Your task to perform on an android device: Open display settings Image 0: 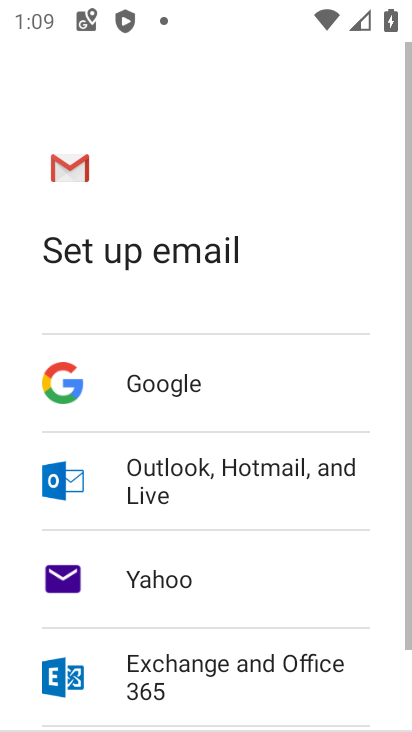
Step 0: press back button
Your task to perform on an android device: Open display settings Image 1: 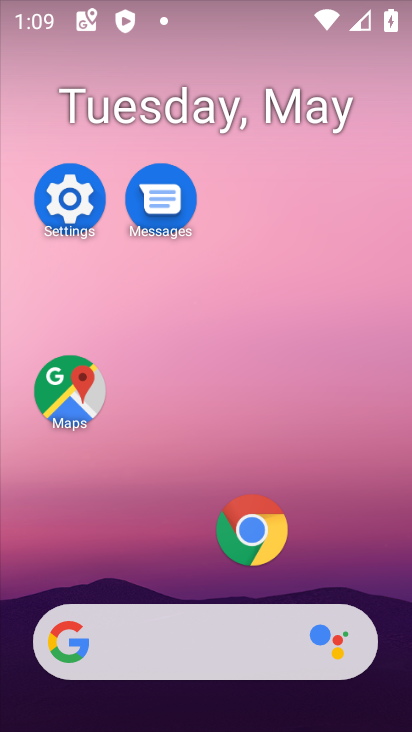
Step 1: drag from (180, 519) to (252, 236)
Your task to perform on an android device: Open display settings Image 2: 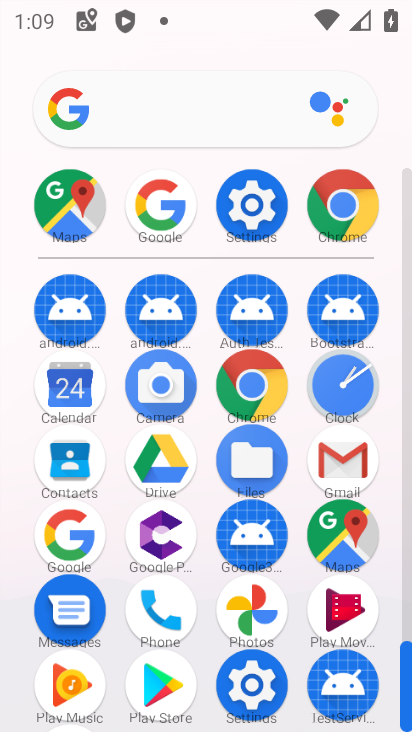
Step 2: click (247, 704)
Your task to perform on an android device: Open display settings Image 3: 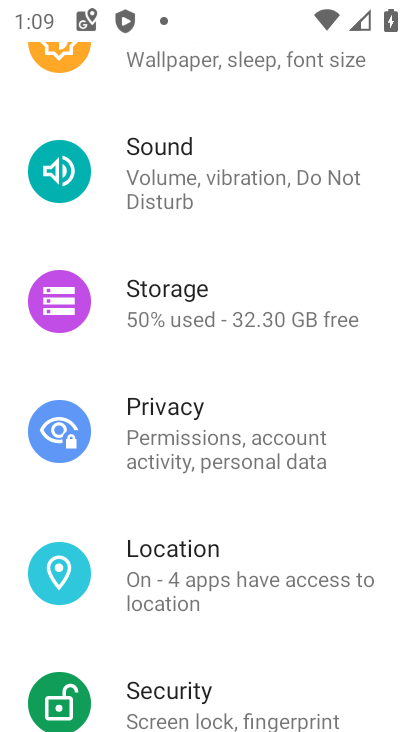
Step 3: drag from (173, 585) to (207, 718)
Your task to perform on an android device: Open display settings Image 4: 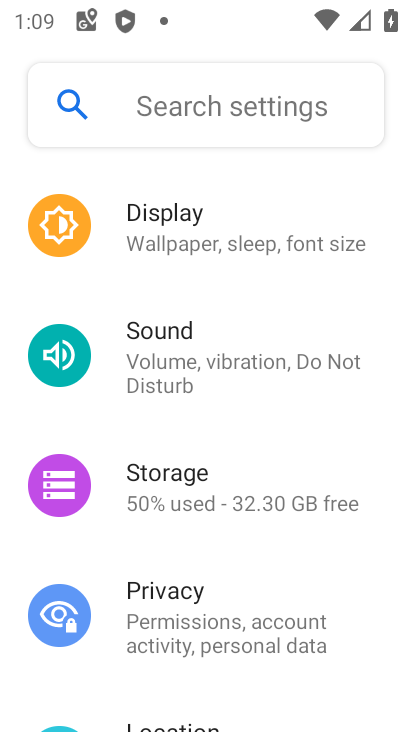
Step 4: click (201, 259)
Your task to perform on an android device: Open display settings Image 5: 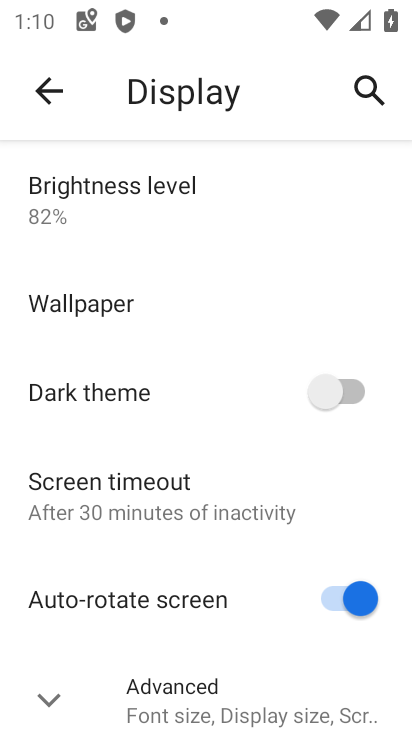
Step 5: task complete